Your task to perform on an android device: change the upload size in google photos Image 0: 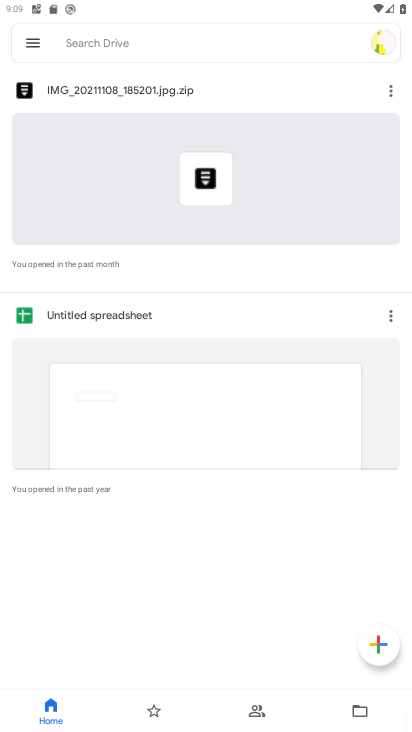
Step 0: press home button
Your task to perform on an android device: change the upload size in google photos Image 1: 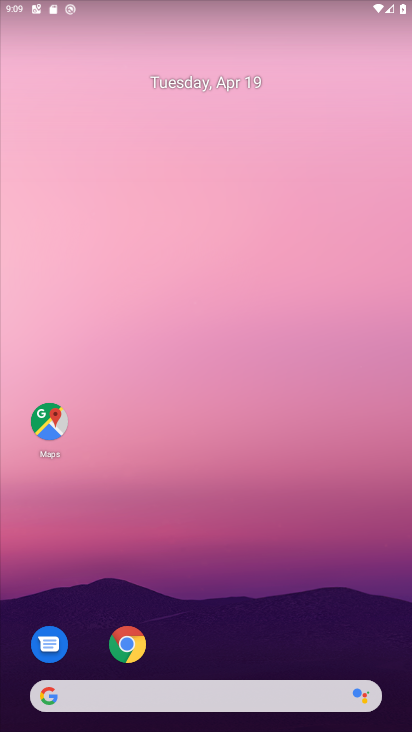
Step 1: drag from (333, 634) to (239, 66)
Your task to perform on an android device: change the upload size in google photos Image 2: 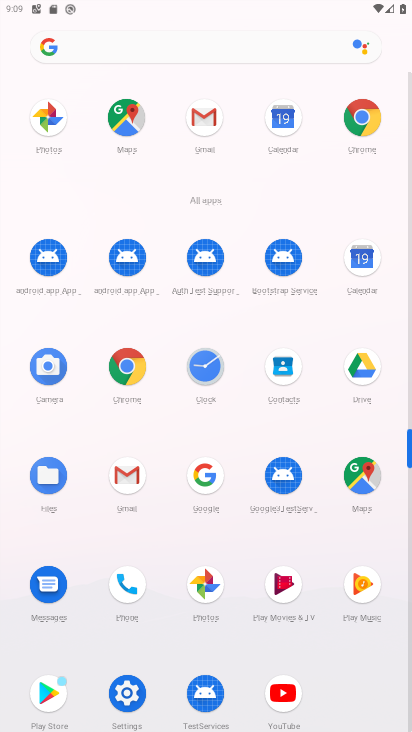
Step 2: click (195, 588)
Your task to perform on an android device: change the upload size in google photos Image 3: 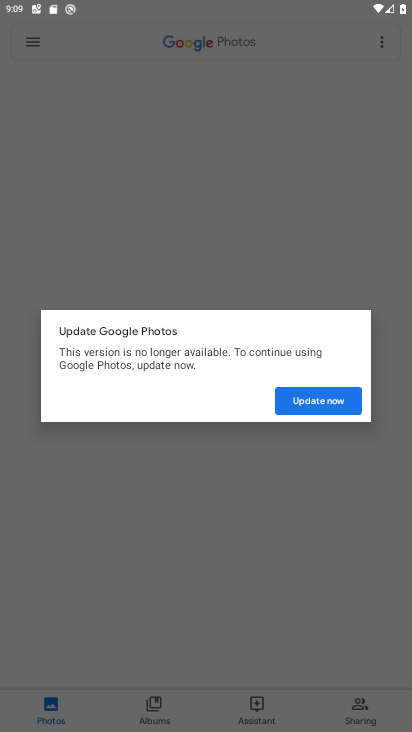
Step 3: click (325, 385)
Your task to perform on an android device: change the upload size in google photos Image 4: 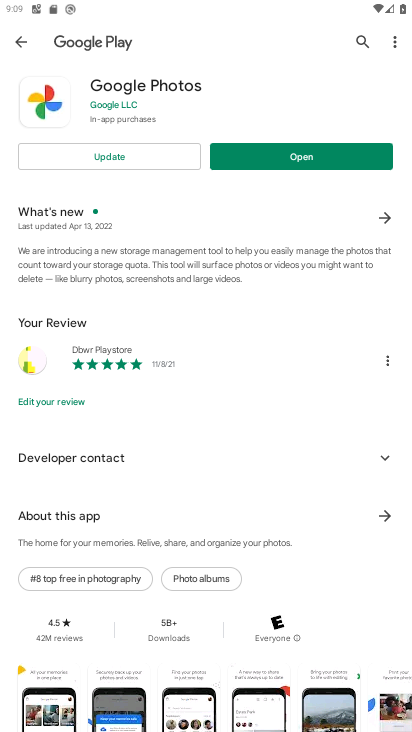
Step 4: click (99, 157)
Your task to perform on an android device: change the upload size in google photos Image 5: 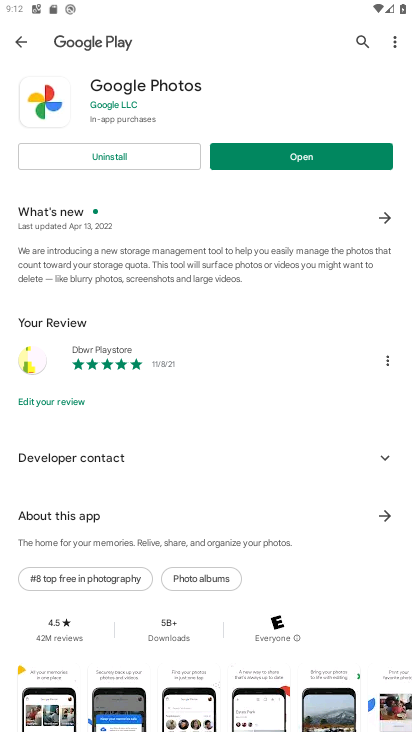
Step 5: click (320, 159)
Your task to perform on an android device: change the upload size in google photos Image 6: 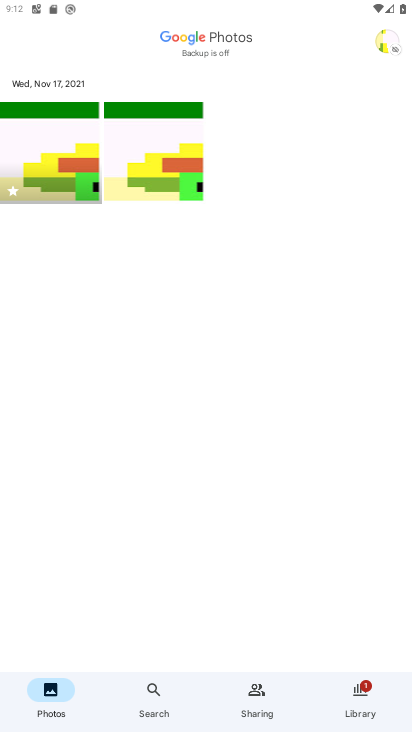
Step 6: click (381, 41)
Your task to perform on an android device: change the upload size in google photos Image 7: 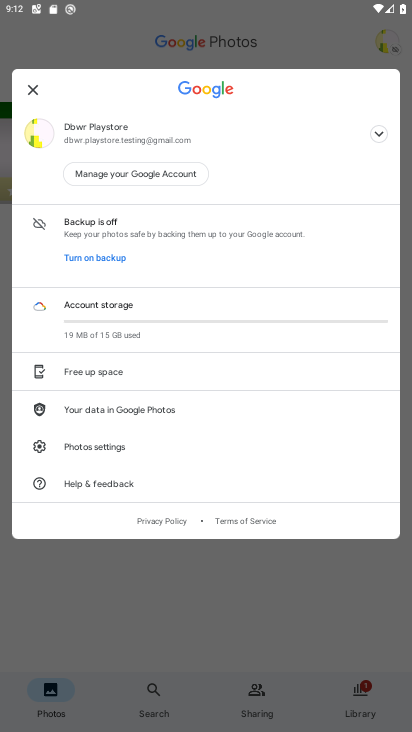
Step 7: click (139, 440)
Your task to perform on an android device: change the upload size in google photos Image 8: 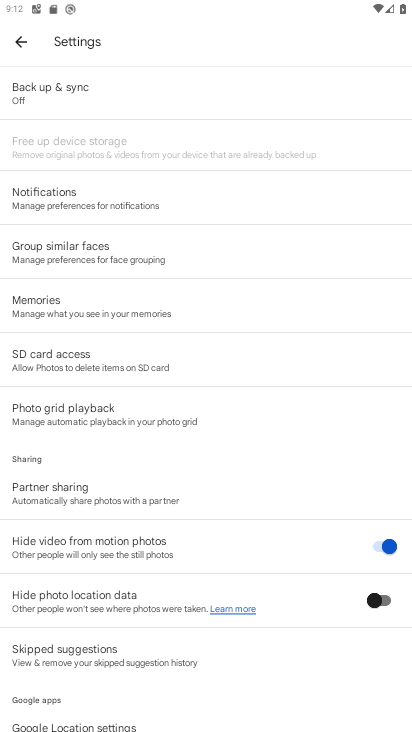
Step 8: click (196, 92)
Your task to perform on an android device: change the upload size in google photos Image 9: 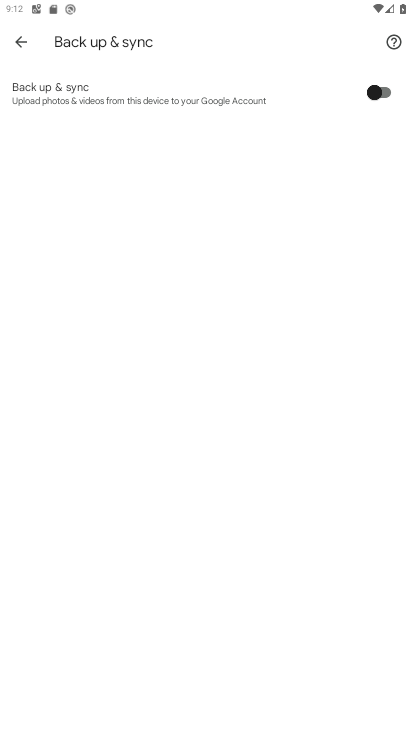
Step 9: task complete